Your task to perform on an android device: open sync settings in chrome Image 0: 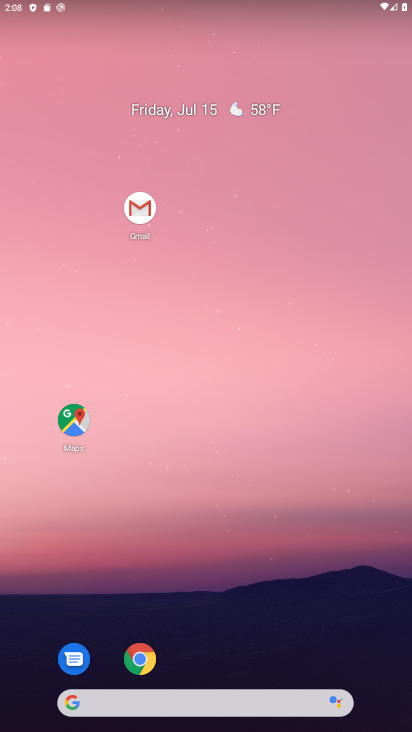
Step 0: click (142, 664)
Your task to perform on an android device: open sync settings in chrome Image 1: 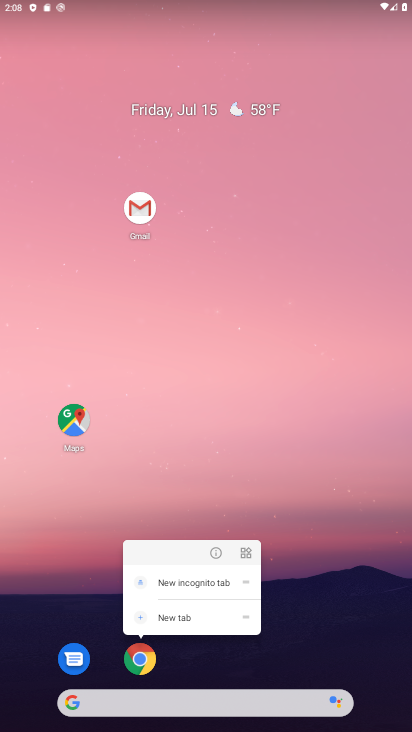
Step 1: click (142, 664)
Your task to perform on an android device: open sync settings in chrome Image 2: 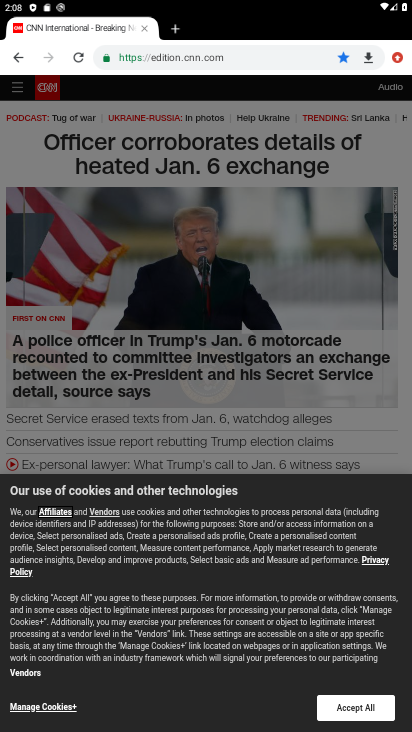
Step 2: click (398, 57)
Your task to perform on an android device: open sync settings in chrome Image 3: 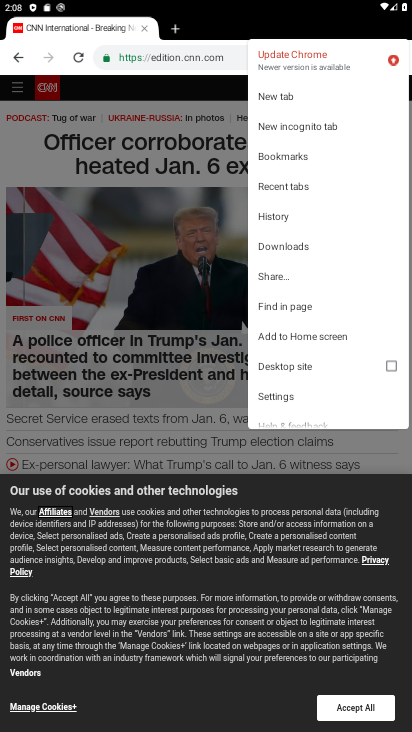
Step 3: click (277, 393)
Your task to perform on an android device: open sync settings in chrome Image 4: 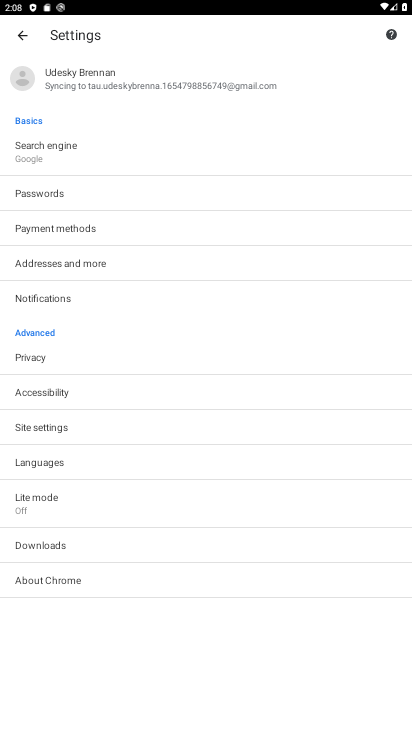
Step 4: click (69, 431)
Your task to perform on an android device: open sync settings in chrome Image 5: 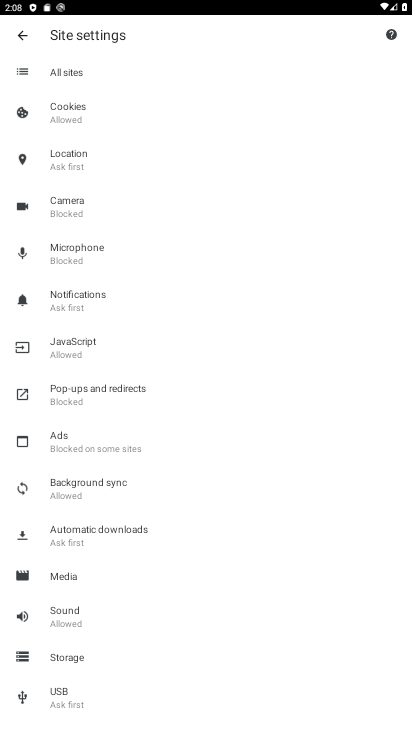
Step 5: click (126, 482)
Your task to perform on an android device: open sync settings in chrome Image 6: 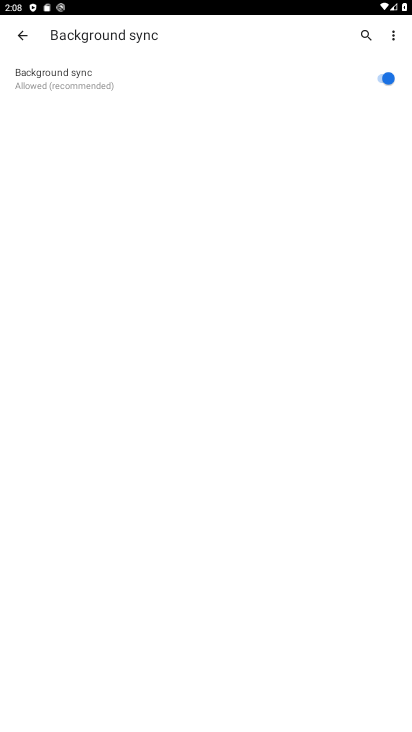
Step 6: task complete